Your task to perform on an android device: allow cookies in the chrome app Image 0: 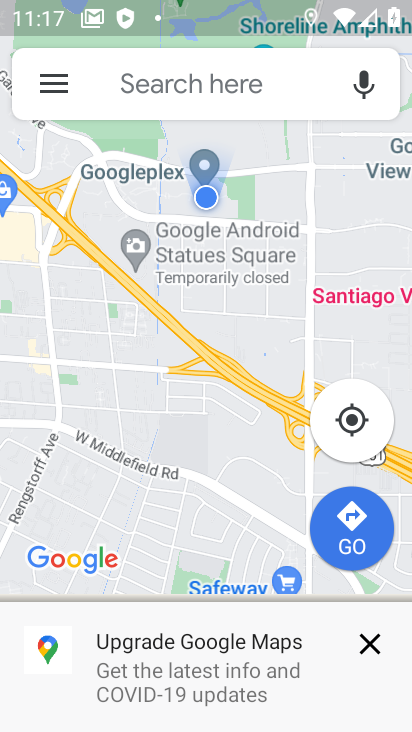
Step 0: press home button
Your task to perform on an android device: allow cookies in the chrome app Image 1: 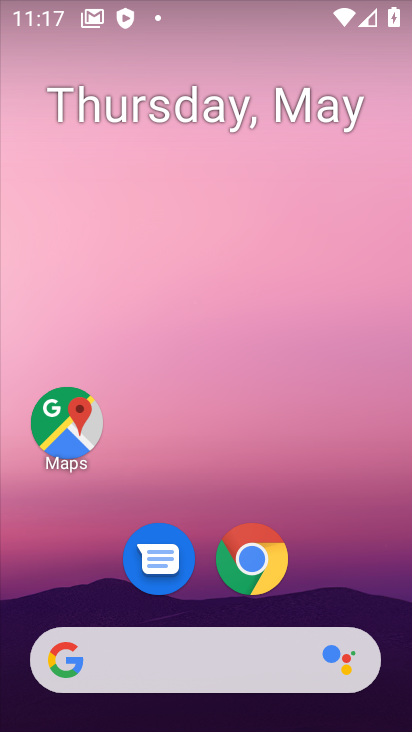
Step 1: click (252, 567)
Your task to perform on an android device: allow cookies in the chrome app Image 2: 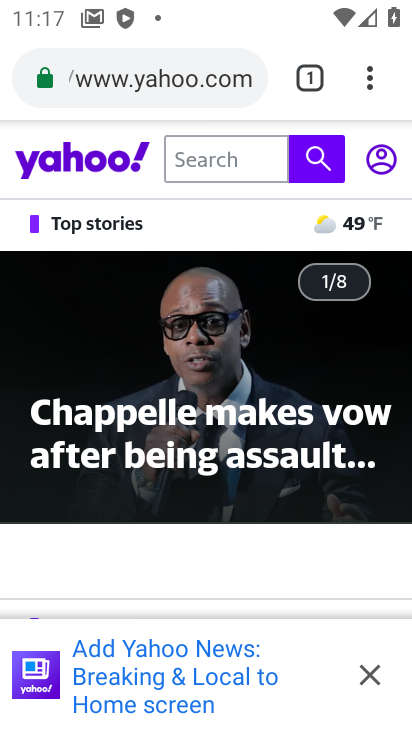
Step 2: drag from (369, 80) to (149, 621)
Your task to perform on an android device: allow cookies in the chrome app Image 3: 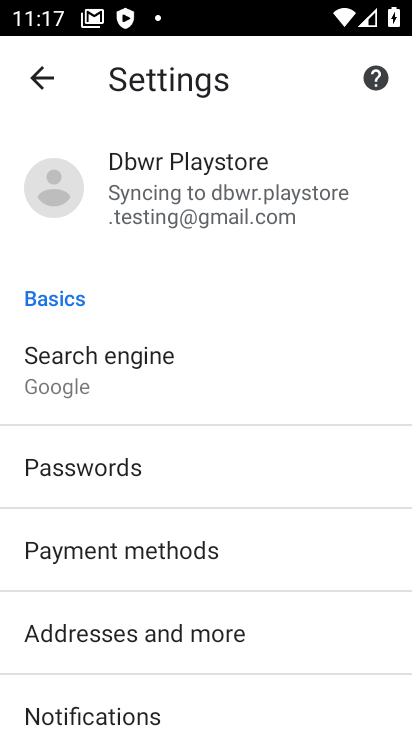
Step 3: drag from (200, 705) to (194, 292)
Your task to perform on an android device: allow cookies in the chrome app Image 4: 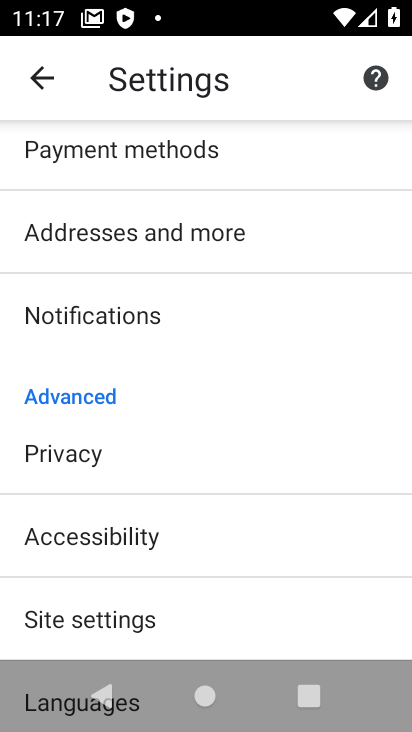
Step 4: click (124, 615)
Your task to perform on an android device: allow cookies in the chrome app Image 5: 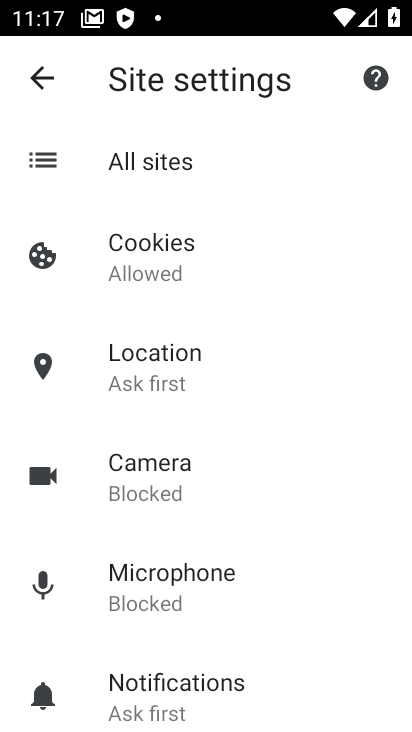
Step 5: click (145, 255)
Your task to perform on an android device: allow cookies in the chrome app Image 6: 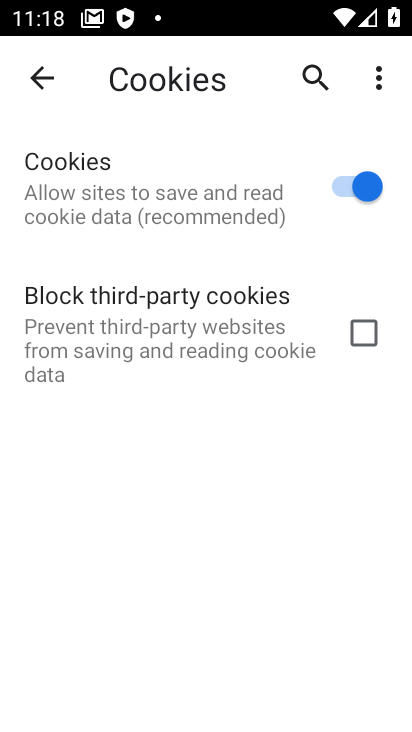
Step 6: task complete